Your task to perform on an android device: turn off translation in the chrome app Image 0: 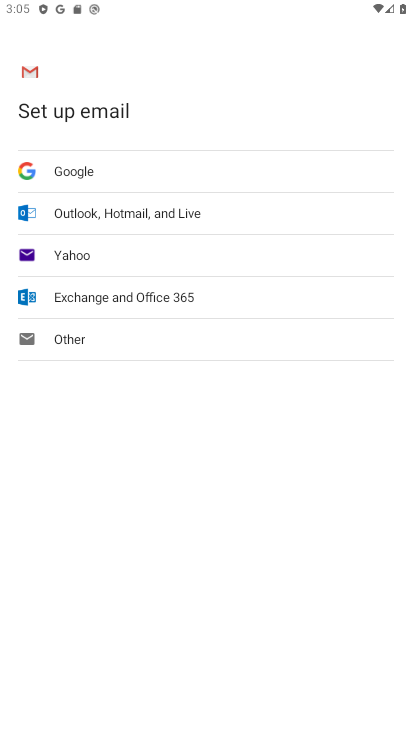
Step 0: press home button
Your task to perform on an android device: turn off translation in the chrome app Image 1: 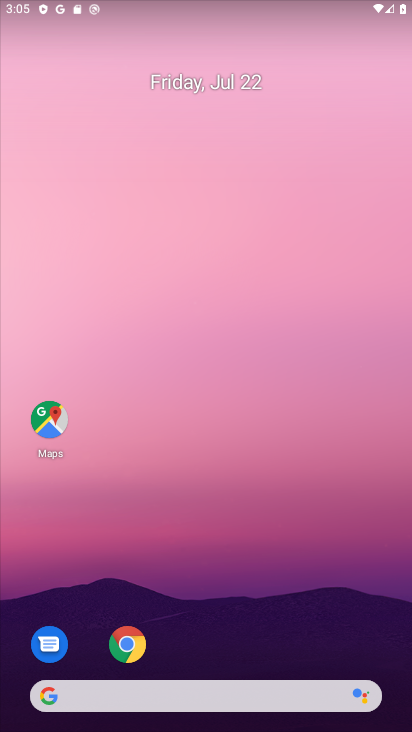
Step 1: click (128, 644)
Your task to perform on an android device: turn off translation in the chrome app Image 2: 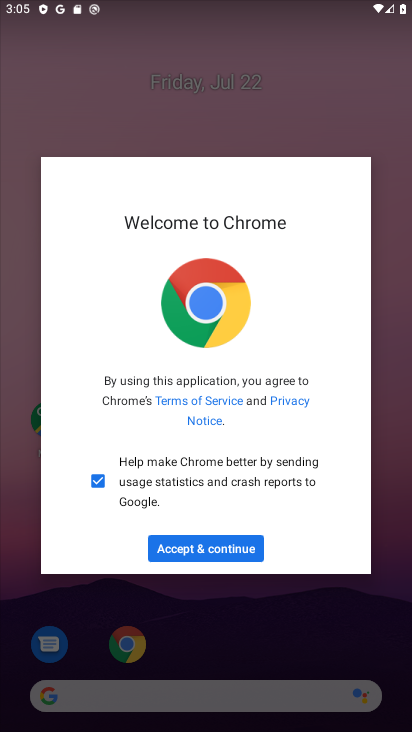
Step 2: click (227, 546)
Your task to perform on an android device: turn off translation in the chrome app Image 3: 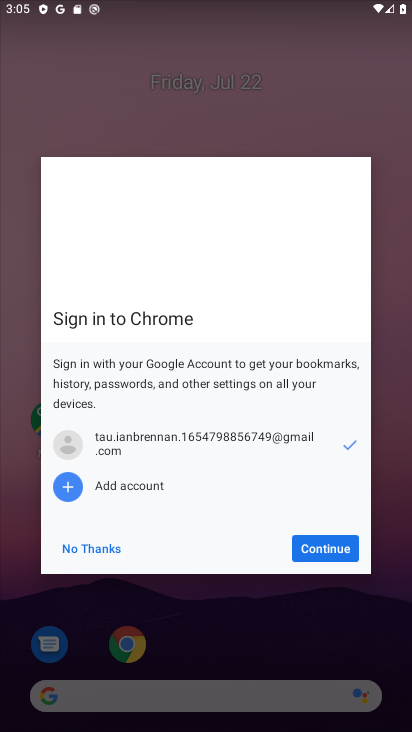
Step 3: click (336, 552)
Your task to perform on an android device: turn off translation in the chrome app Image 4: 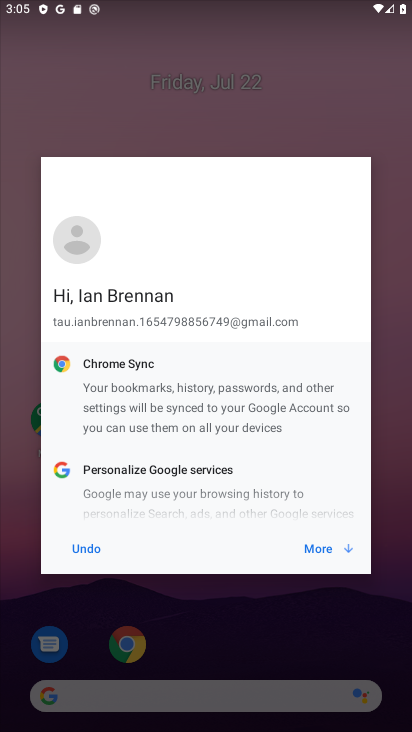
Step 4: click (325, 548)
Your task to perform on an android device: turn off translation in the chrome app Image 5: 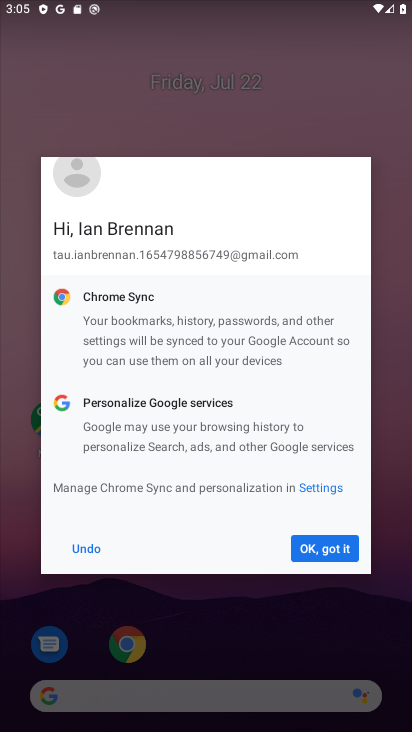
Step 5: click (327, 552)
Your task to perform on an android device: turn off translation in the chrome app Image 6: 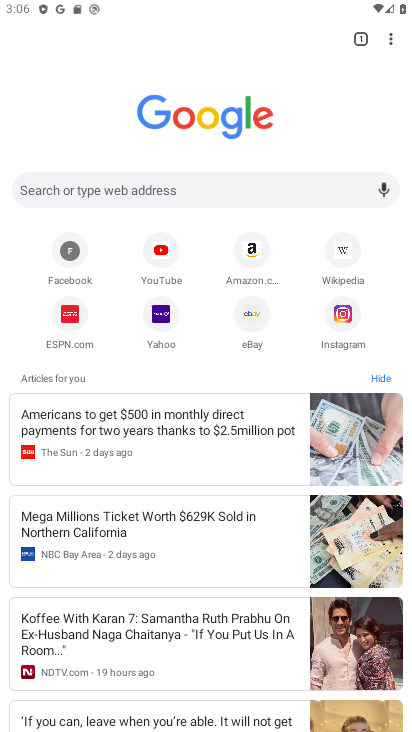
Step 6: click (391, 45)
Your task to perform on an android device: turn off translation in the chrome app Image 7: 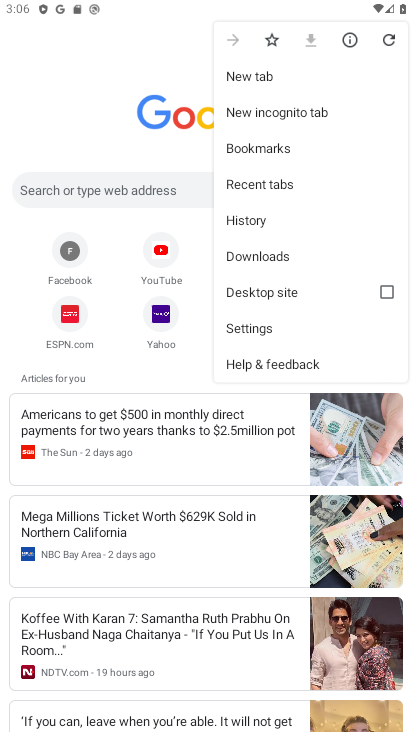
Step 7: click (244, 329)
Your task to perform on an android device: turn off translation in the chrome app Image 8: 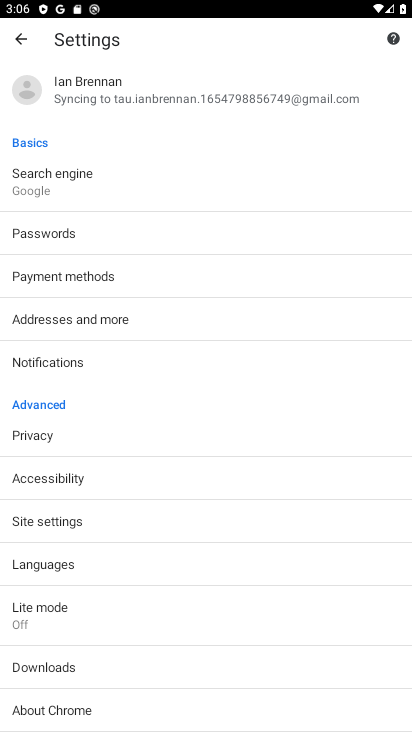
Step 8: click (46, 565)
Your task to perform on an android device: turn off translation in the chrome app Image 9: 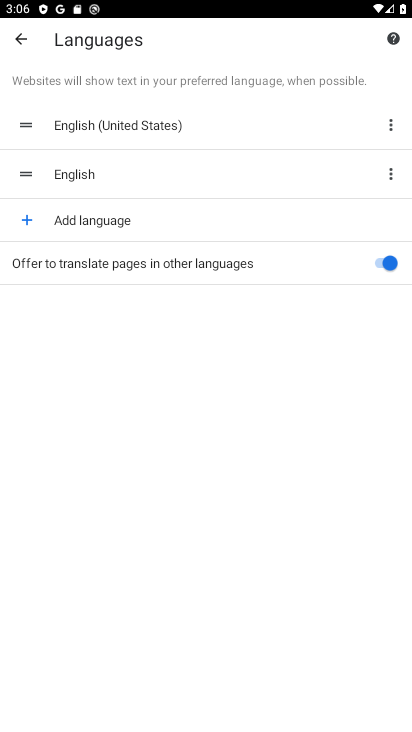
Step 9: click (381, 260)
Your task to perform on an android device: turn off translation in the chrome app Image 10: 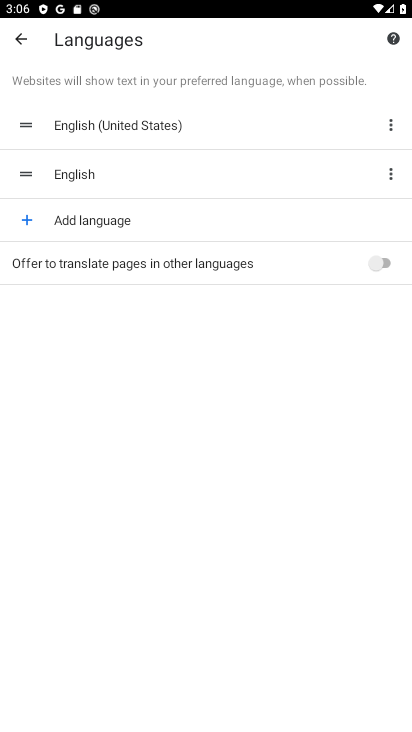
Step 10: task complete